Your task to perform on an android device: Open Yahoo.com Image 0: 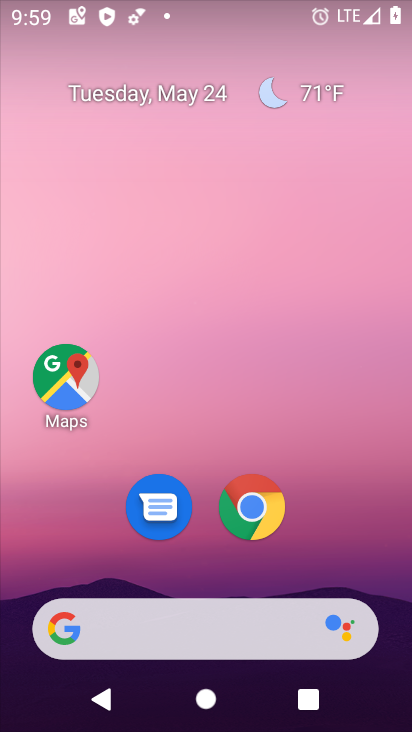
Step 0: click (253, 507)
Your task to perform on an android device: Open Yahoo.com Image 1: 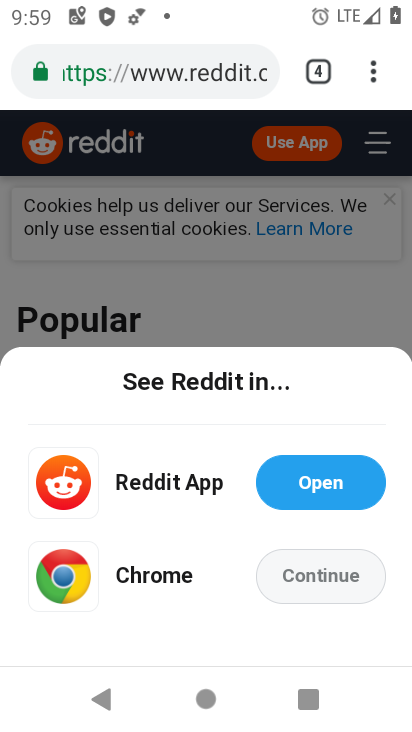
Step 1: click (374, 79)
Your task to perform on an android device: Open Yahoo.com Image 2: 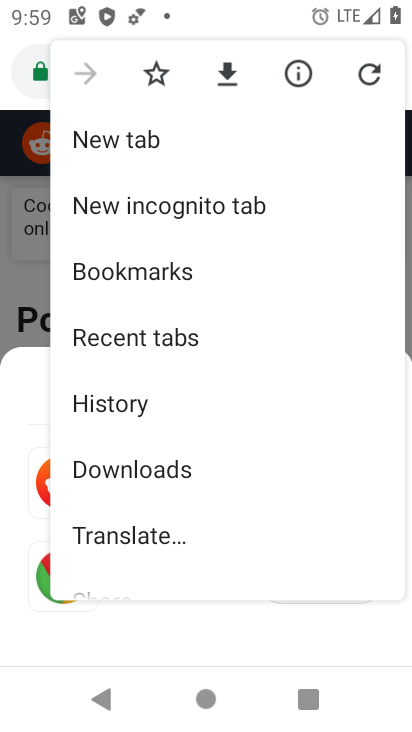
Step 2: click (128, 134)
Your task to perform on an android device: Open Yahoo.com Image 3: 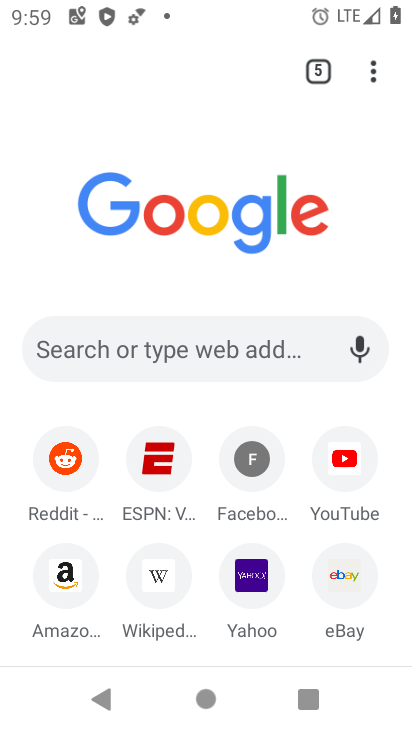
Step 3: click (255, 563)
Your task to perform on an android device: Open Yahoo.com Image 4: 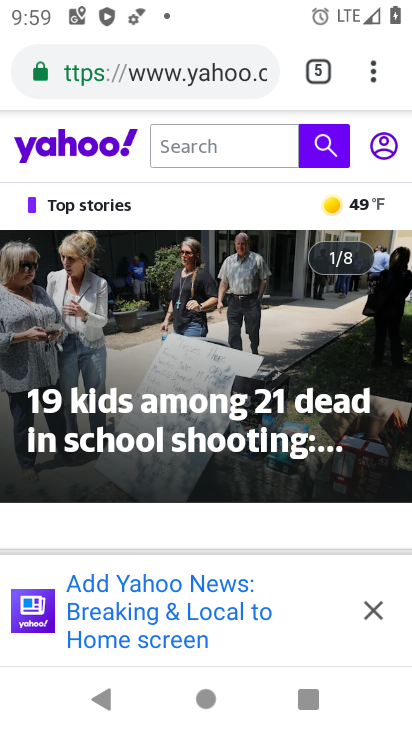
Step 4: task complete